Your task to perform on an android device: Add "macbook pro 13 inch" to the cart on walmart, then select checkout. Image 0: 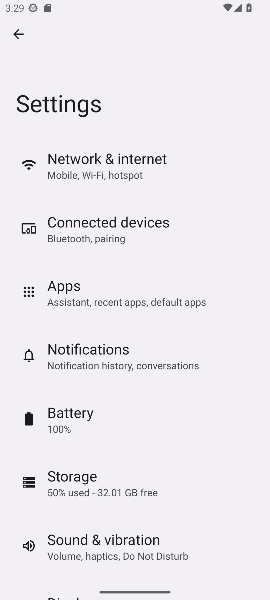
Step 0: press home button
Your task to perform on an android device: Add "macbook pro 13 inch" to the cart on walmart, then select checkout. Image 1: 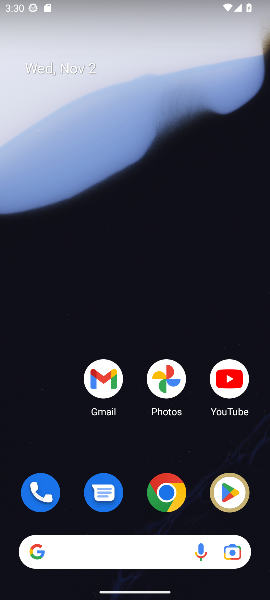
Step 1: click (166, 494)
Your task to perform on an android device: Add "macbook pro 13 inch" to the cart on walmart, then select checkout. Image 2: 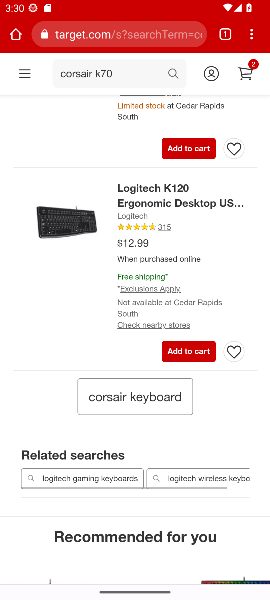
Step 2: click (149, 25)
Your task to perform on an android device: Add "macbook pro 13 inch" to the cart on walmart, then select checkout. Image 3: 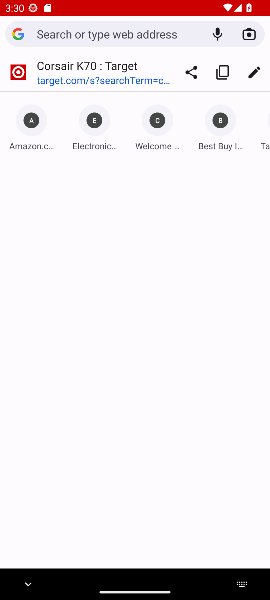
Step 3: type "walmart"
Your task to perform on an android device: Add "macbook pro 13 inch" to the cart on walmart, then select checkout. Image 4: 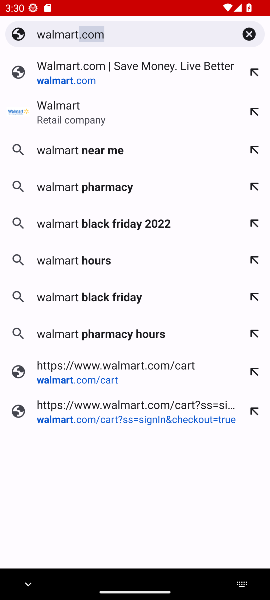
Step 4: click (63, 112)
Your task to perform on an android device: Add "macbook pro 13 inch" to the cart on walmart, then select checkout. Image 5: 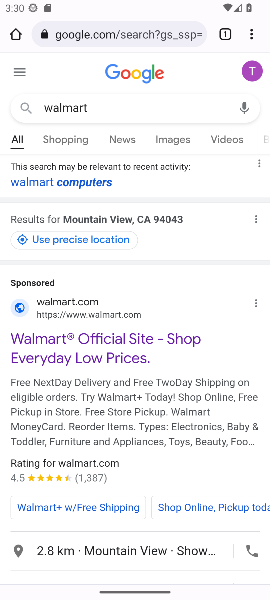
Step 5: click (100, 337)
Your task to perform on an android device: Add "macbook pro 13 inch" to the cart on walmart, then select checkout. Image 6: 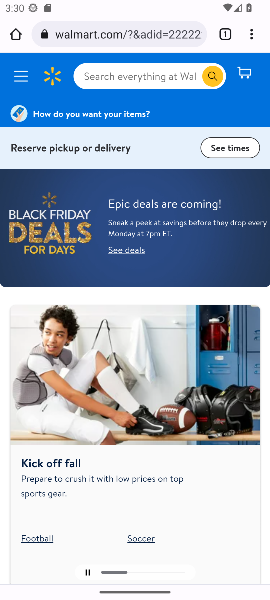
Step 6: drag from (188, 500) to (198, 184)
Your task to perform on an android device: Add "macbook pro 13 inch" to the cart on walmart, then select checkout. Image 7: 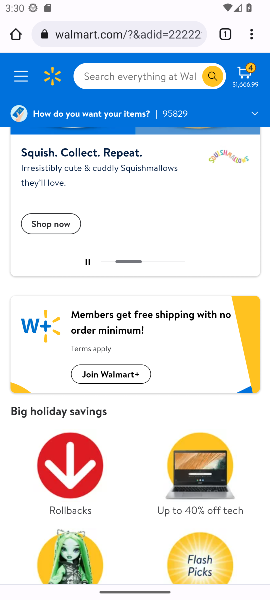
Step 7: click (113, 69)
Your task to perform on an android device: Add "macbook pro 13 inch" to the cart on walmart, then select checkout. Image 8: 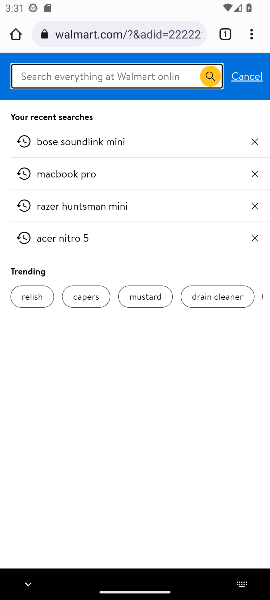
Step 8: type "macbook pro 13 inch"
Your task to perform on an android device: Add "macbook pro 13 inch" to the cart on walmart, then select checkout. Image 9: 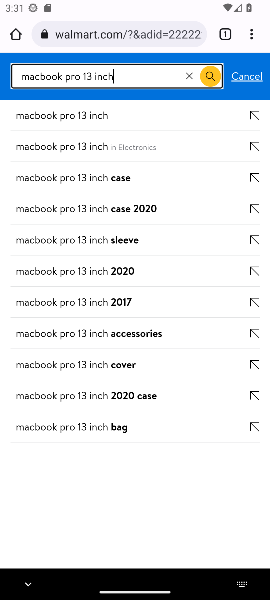
Step 9: click (24, 109)
Your task to perform on an android device: Add "macbook pro 13 inch" to the cart on walmart, then select checkout. Image 10: 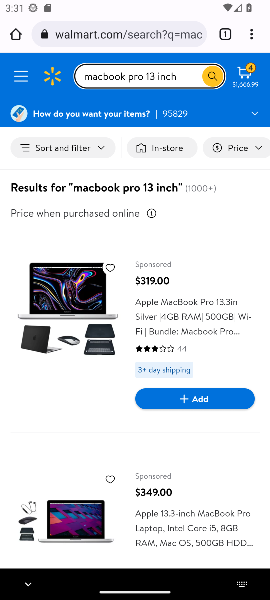
Step 10: click (192, 397)
Your task to perform on an android device: Add "macbook pro 13 inch" to the cart on walmart, then select checkout. Image 11: 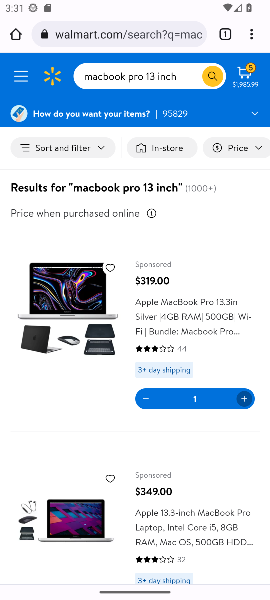
Step 11: click (241, 68)
Your task to perform on an android device: Add "macbook pro 13 inch" to the cart on walmart, then select checkout. Image 12: 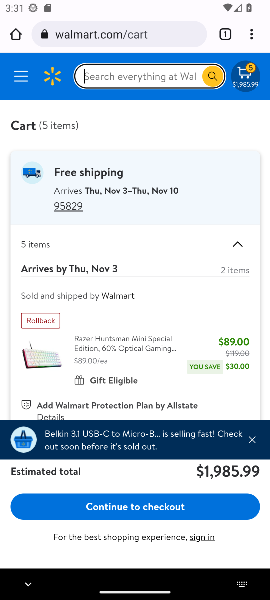
Step 12: click (146, 508)
Your task to perform on an android device: Add "macbook pro 13 inch" to the cart on walmart, then select checkout. Image 13: 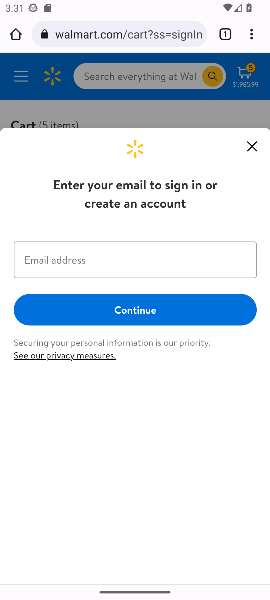
Step 13: task complete